Your task to perform on an android device: find which apps use the phone's location Image 0: 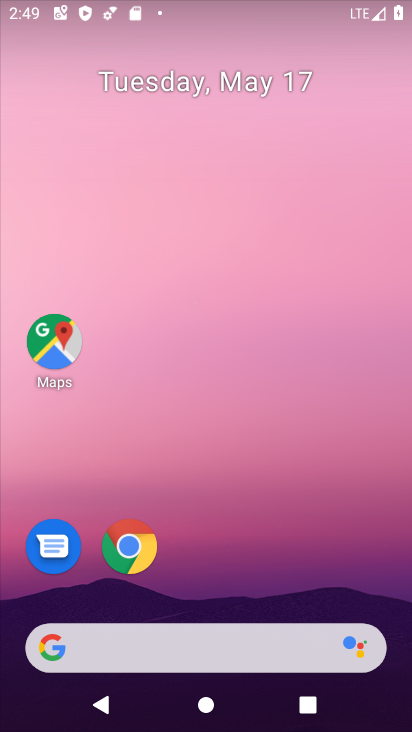
Step 0: press home button
Your task to perform on an android device: find which apps use the phone's location Image 1: 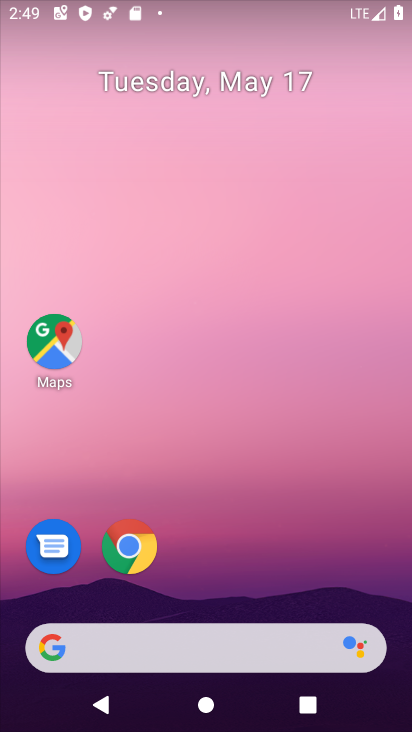
Step 1: drag from (324, 561) to (327, 11)
Your task to perform on an android device: find which apps use the phone's location Image 2: 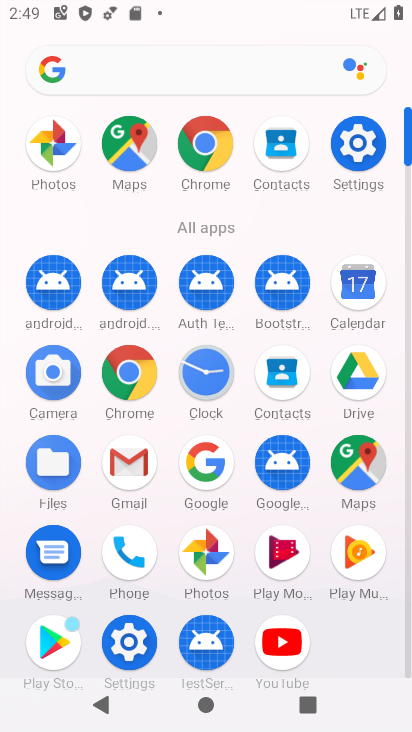
Step 2: click (343, 146)
Your task to perform on an android device: find which apps use the phone's location Image 3: 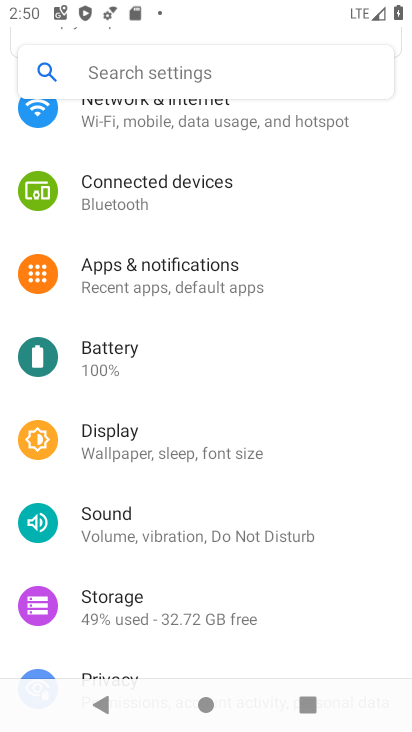
Step 3: press home button
Your task to perform on an android device: find which apps use the phone's location Image 4: 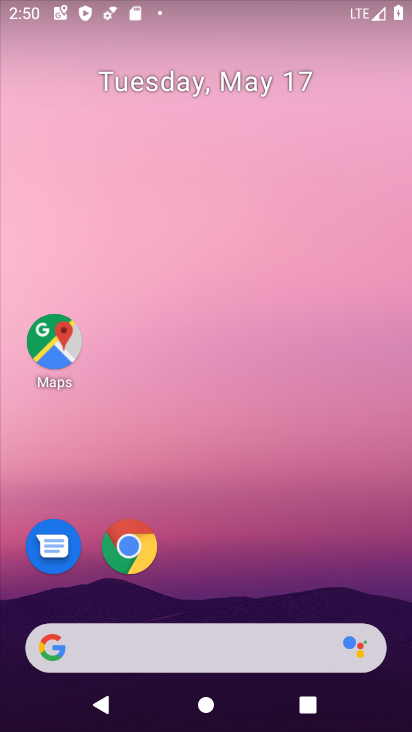
Step 4: drag from (338, 523) to (334, 16)
Your task to perform on an android device: find which apps use the phone's location Image 5: 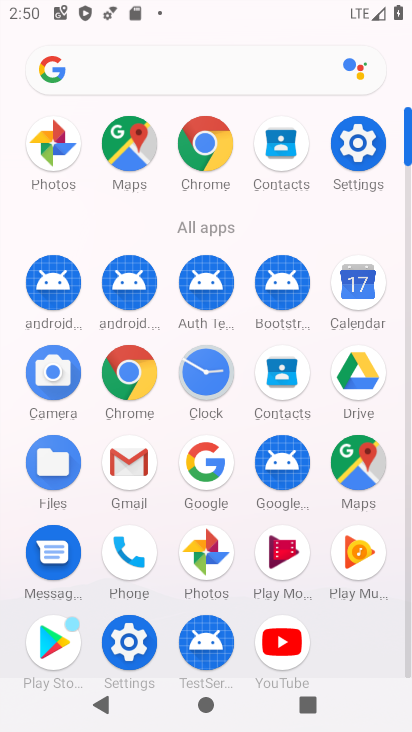
Step 5: click (144, 554)
Your task to perform on an android device: find which apps use the phone's location Image 6: 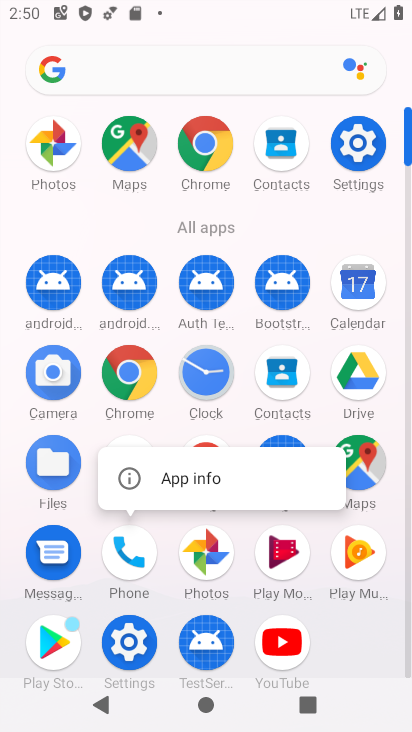
Step 6: click (161, 489)
Your task to perform on an android device: find which apps use the phone's location Image 7: 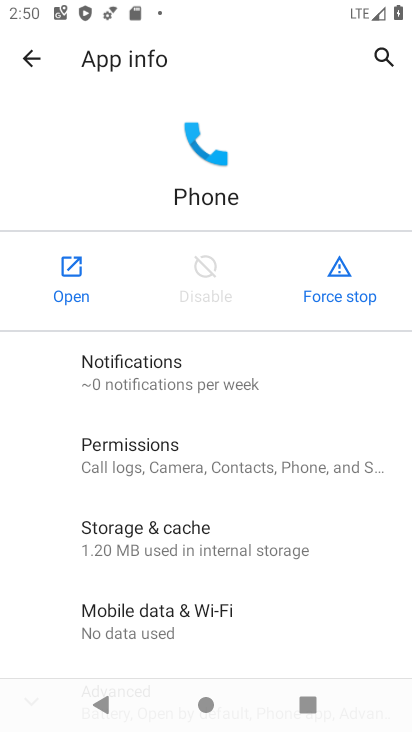
Step 7: drag from (179, 649) to (190, 607)
Your task to perform on an android device: find which apps use the phone's location Image 8: 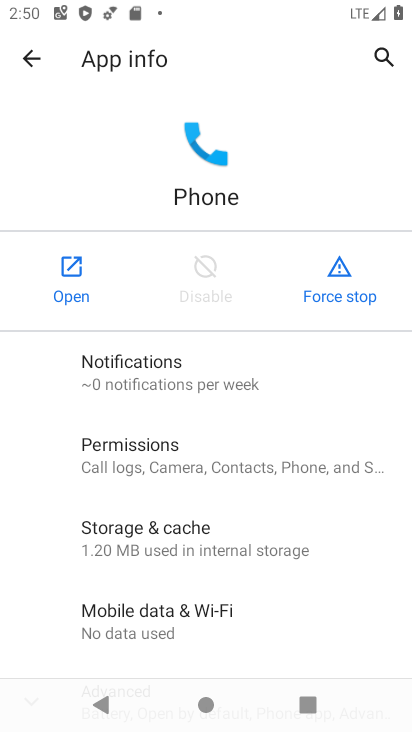
Step 8: click (194, 462)
Your task to perform on an android device: find which apps use the phone's location Image 9: 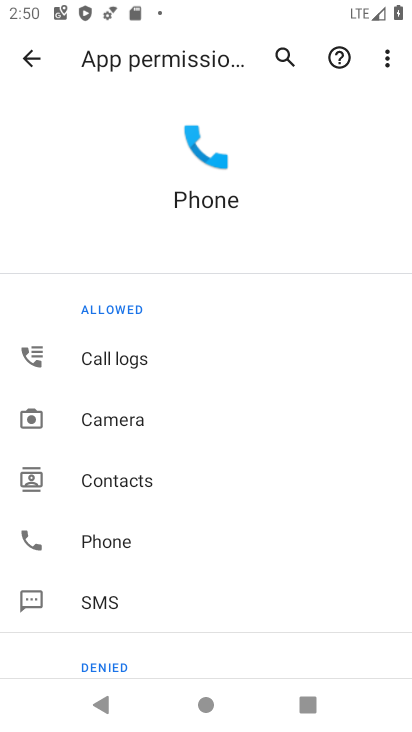
Step 9: drag from (117, 658) to (155, 177)
Your task to perform on an android device: find which apps use the phone's location Image 10: 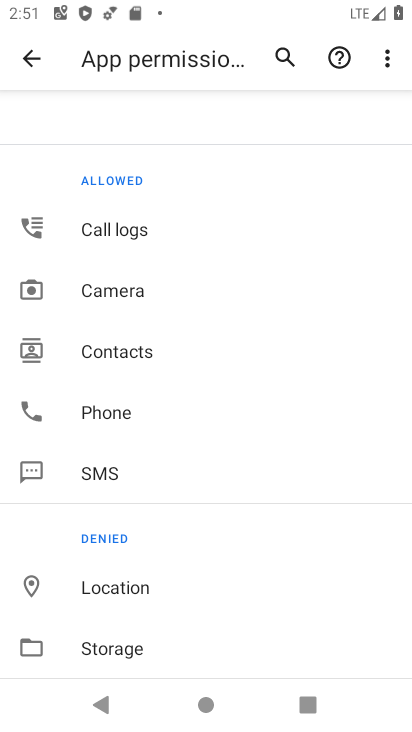
Step 10: drag from (116, 156) to (119, 597)
Your task to perform on an android device: find which apps use the phone's location Image 11: 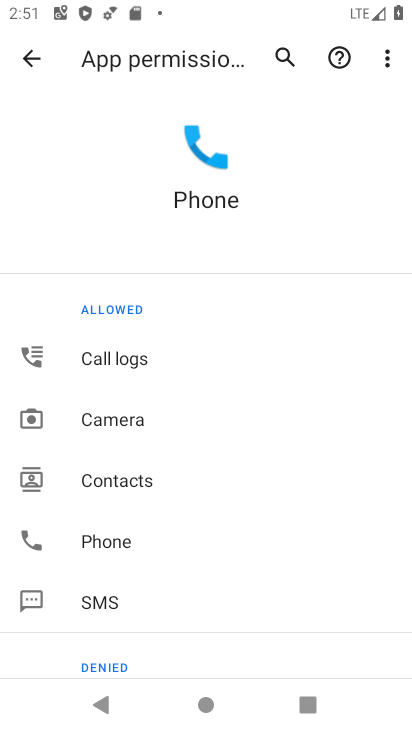
Step 11: click (25, 52)
Your task to perform on an android device: find which apps use the phone's location Image 12: 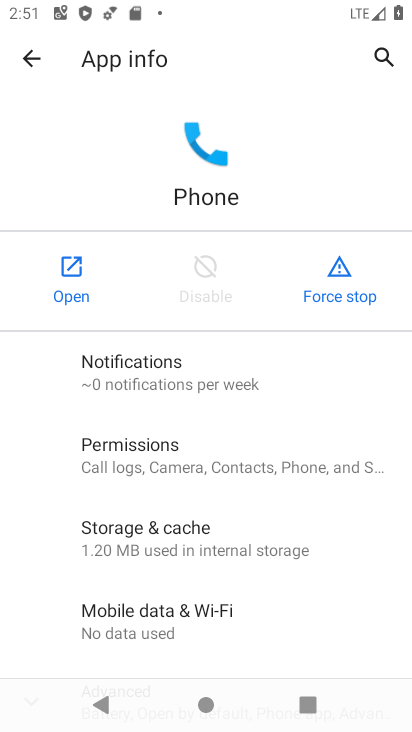
Step 12: drag from (172, 540) to (179, 267)
Your task to perform on an android device: find which apps use the phone's location Image 13: 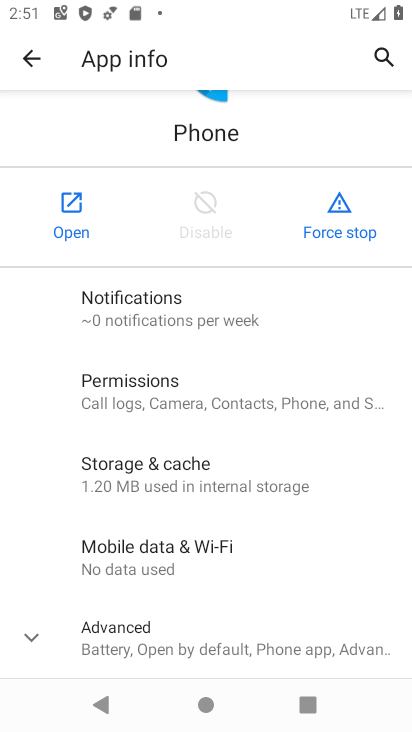
Step 13: click (224, 393)
Your task to perform on an android device: find which apps use the phone's location Image 14: 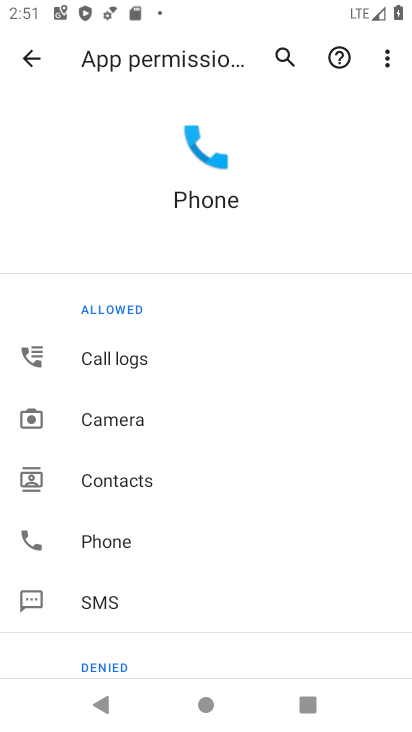
Step 14: click (122, 586)
Your task to perform on an android device: find which apps use the phone's location Image 15: 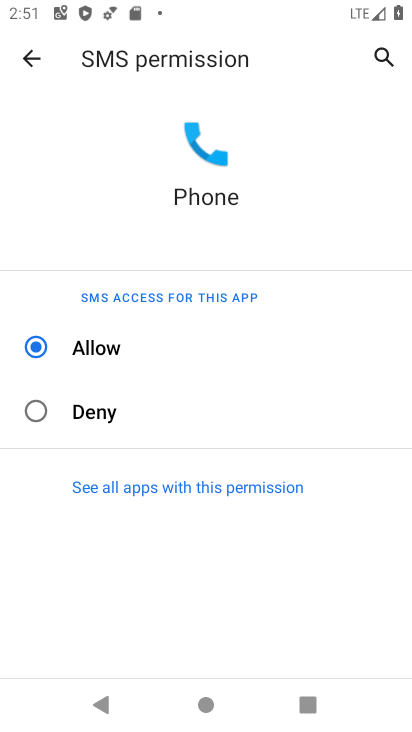
Step 15: click (38, 50)
Your task to perform on an android device: find which apps use the phone's location Image 16: 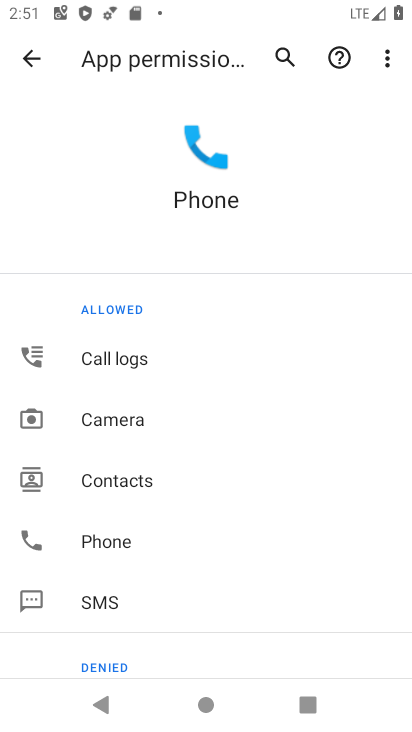
Step 16: click (106, 528)
Your task to perform on an android device: find which apps use the phone's location Image 17: 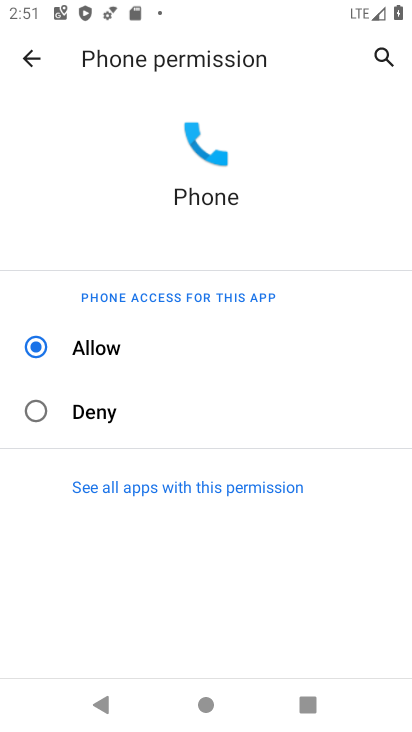
Step 17: click (26, 63)
Your task to perform on an android device: find which apps use the phone's location Image 18: 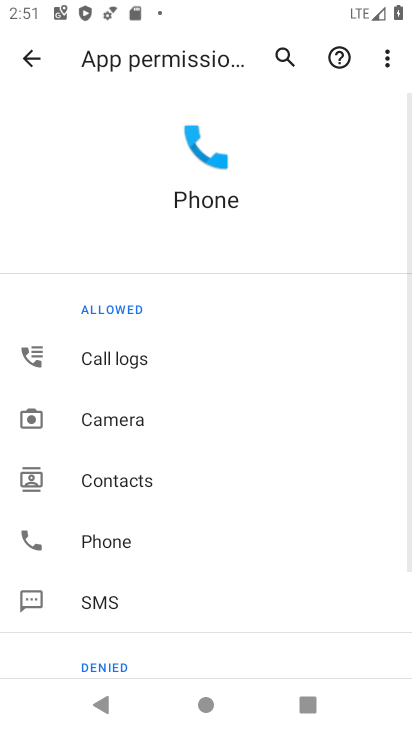
Step 18: drag from (119, 550) to (162, 252)
Your task to perform on an android device: find which apps use the phone's location Image 19: 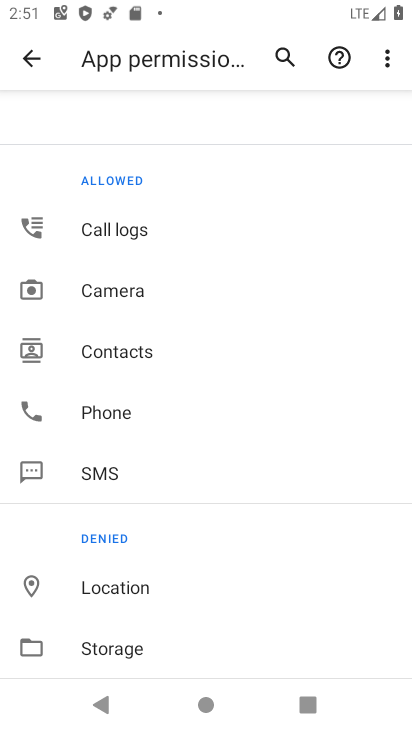
Step 19: click (153, 591)
Your task to perform on an android device: find which apps use the phone's location Image 20: 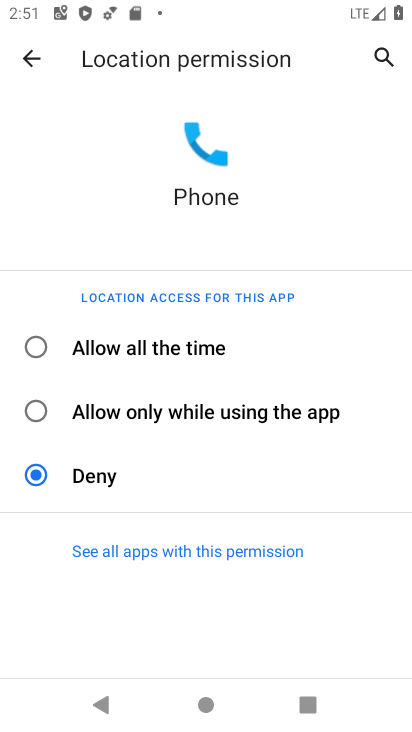
Step 20: click (151, 553)
Your task to perform on an android device: find which apps use the phone's location Image 21: 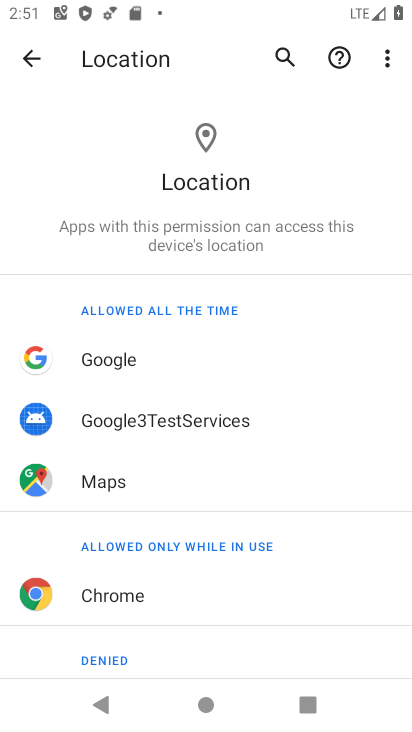
Step 21: task complete